Your task to perform on an android device: turn pop-ups on in chrome Image 0: 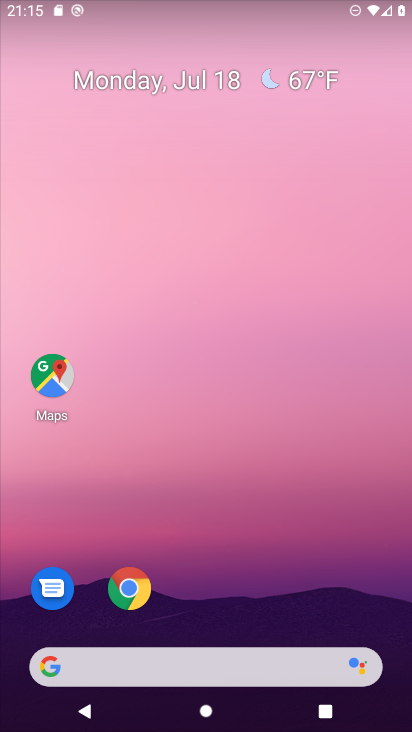
Step 0: click (125, 589)
Your task to perform on an android device: turn pop-ups on in chrome Image 1: 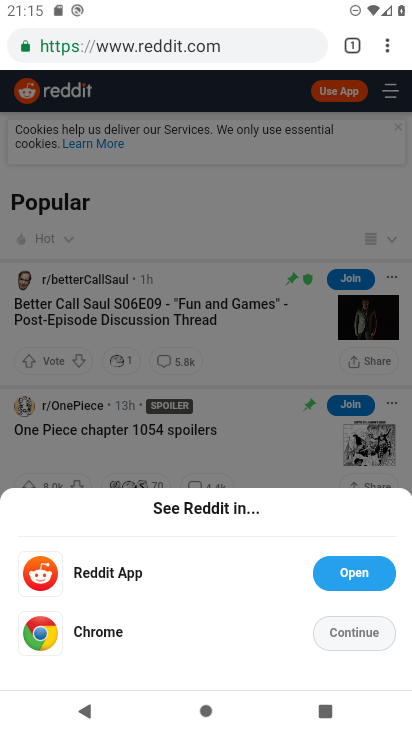
Step 1: click (387, 46)
Your task to perform on an android device: turn pop-ups on in chrome Image 2: 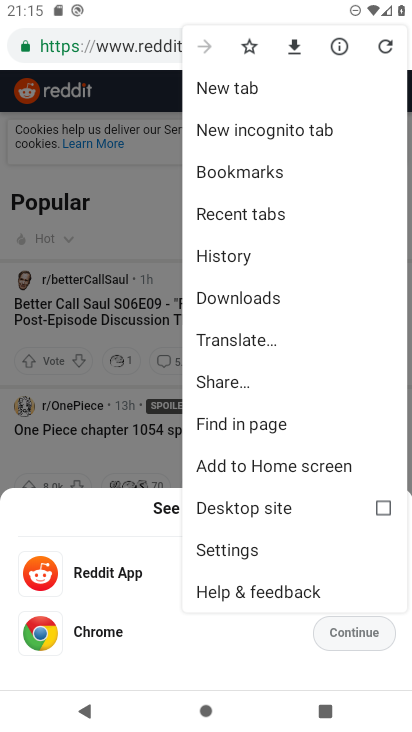
Step 2: click (245, 545)
Your task to perform on an android device: turn pop-ups on in chrome Image 3: 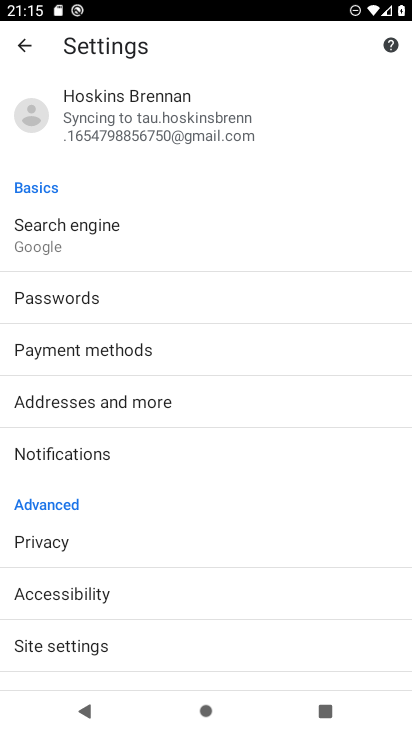
Step 3: drag from (175, 603) to (197, 237)
Your task to perform on an android device: turn pop-ups on in chrome Image 4: 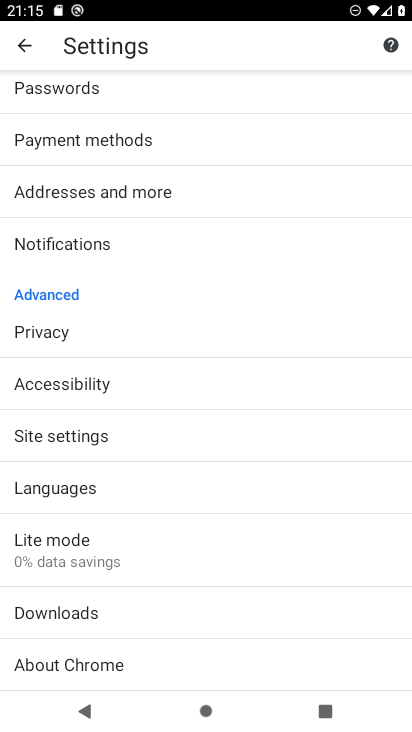
Step 4: click (47, 436)
Your task to perform on an android device: turn pop-ups on in chrome Image 5: 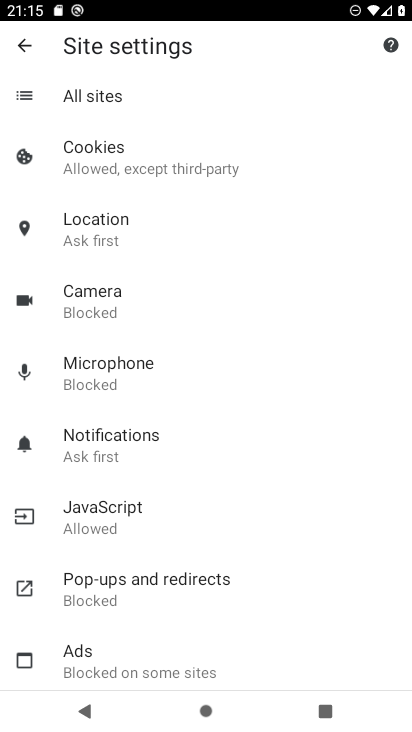
Step 5: click (111, 584)
Your task to perform on an android device: turn pop-ups on in chrome Image 6: 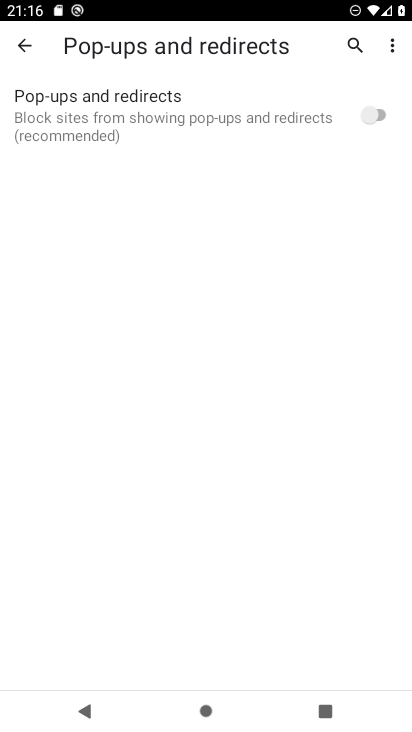
Step 6: click (383, 113)
Your task to perform on an android device: turn pop-ups on in chrome Image 7: 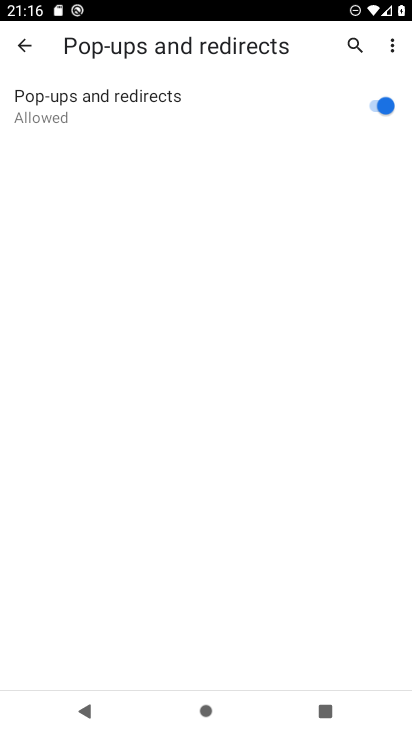
Step 7: task complete